Your task to perform on an android device: turn on improve location accuracy Image 0: 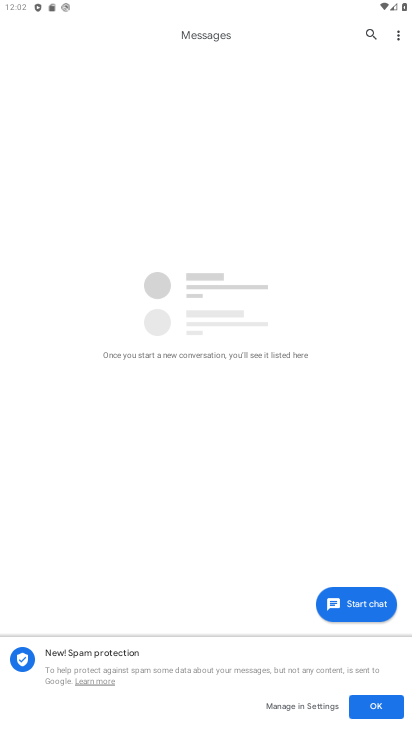
Step 0: press home button
Your task to perform on an android device: turn on improve location accuracy Image 1: 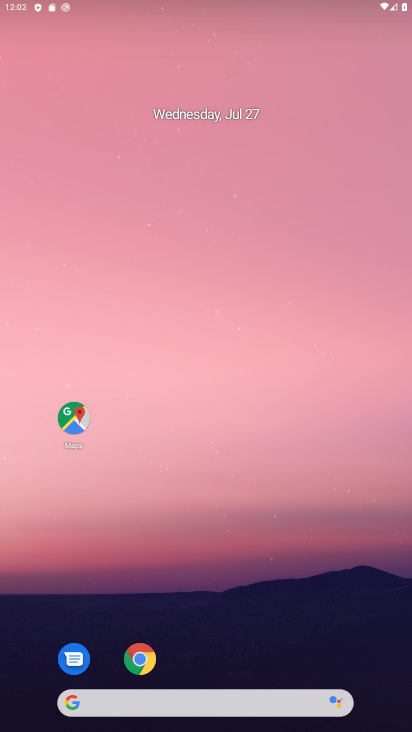
Step 1: drag from (317, 625) to (291, 46)
Your task to perform on an android device: turn on improve location accuracy Image 2: 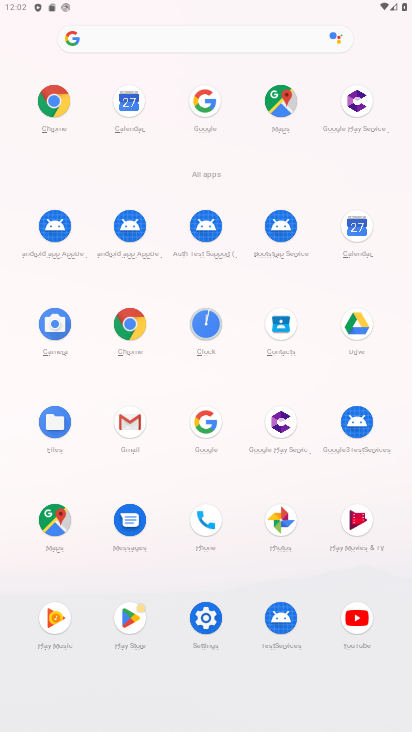
Step 2: click (198, 626)
Your task to perform on an android device: turn on improve location accuracy Image 3: 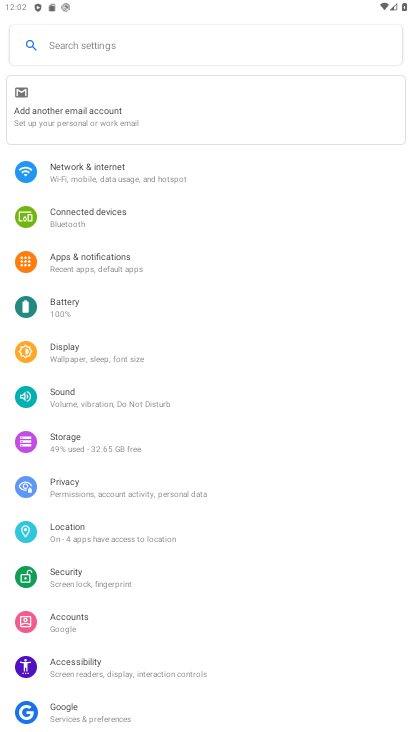
Step 3: click (76, 534)
Your task to perform on an android device: turn on improve location accuracy Image 4: 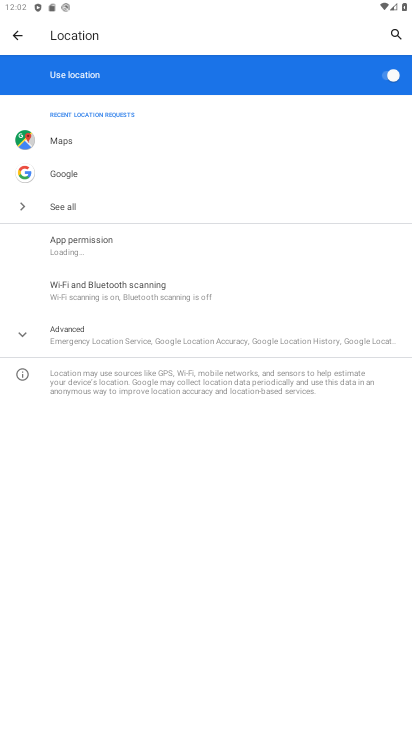
Step 4: click (110, 340)
Your task to perform on an android device: turn on improve location accuracy Image 5: 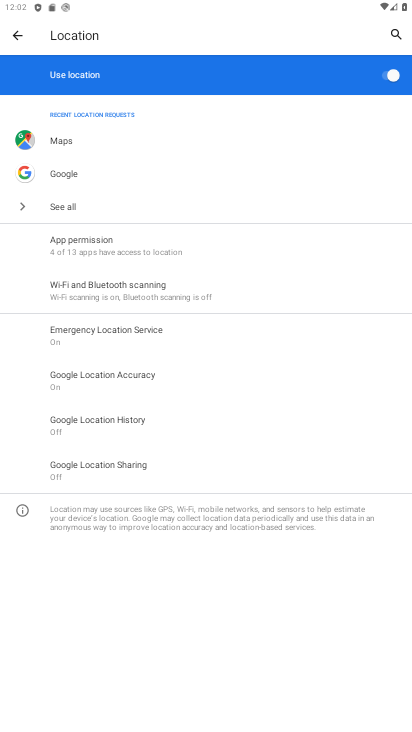
Step 5: click (147, 379)
Your task to perform on an android device: turn on improve location accuracy Image 6: 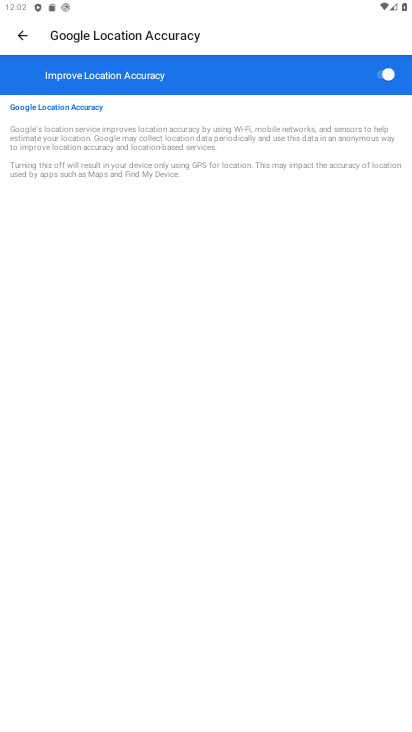
Step 6: task complete